Your task to perform on an android device: open app "WhatsApp Messenger" Image 0: 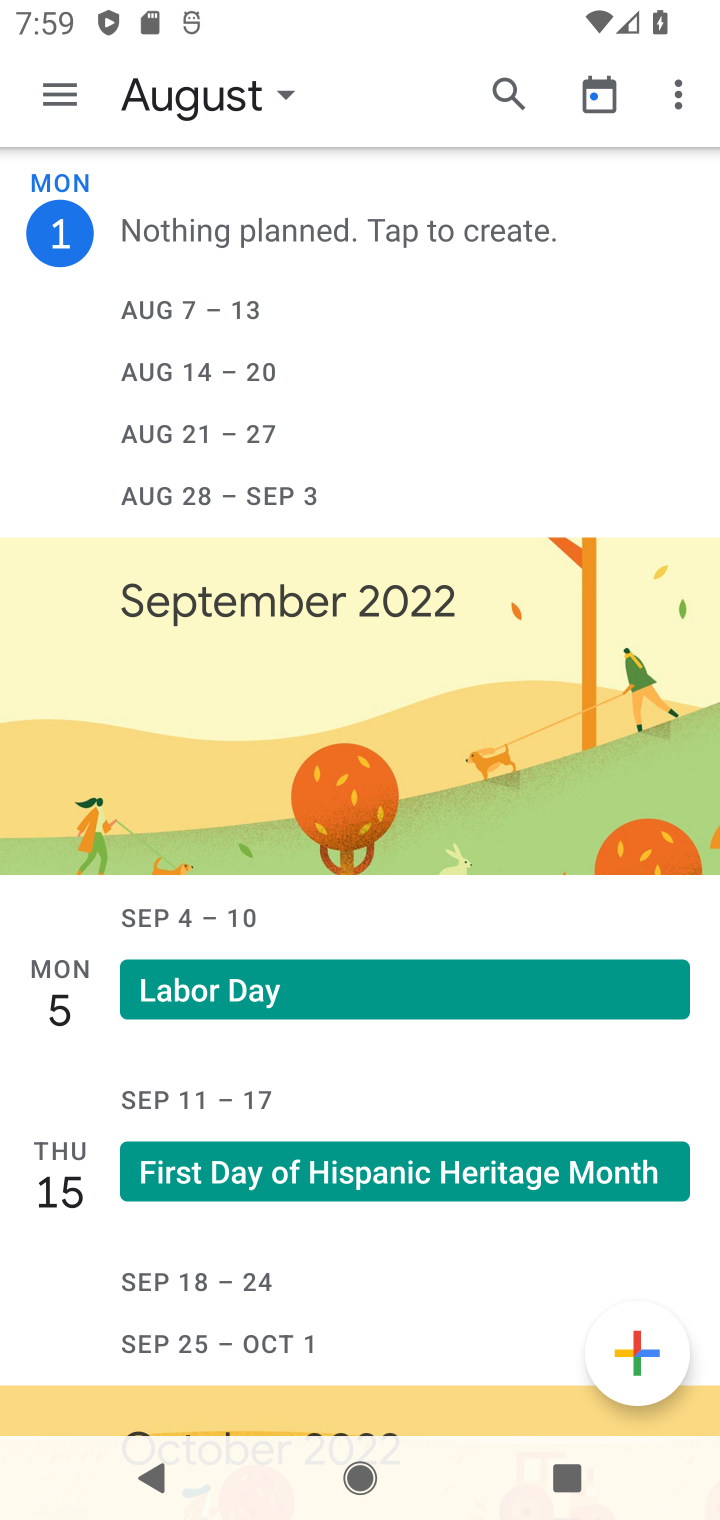
Step 0: click (713, 1330)
Your task to perform on an android device: open app "WhatsApp Messenger" Image 1: 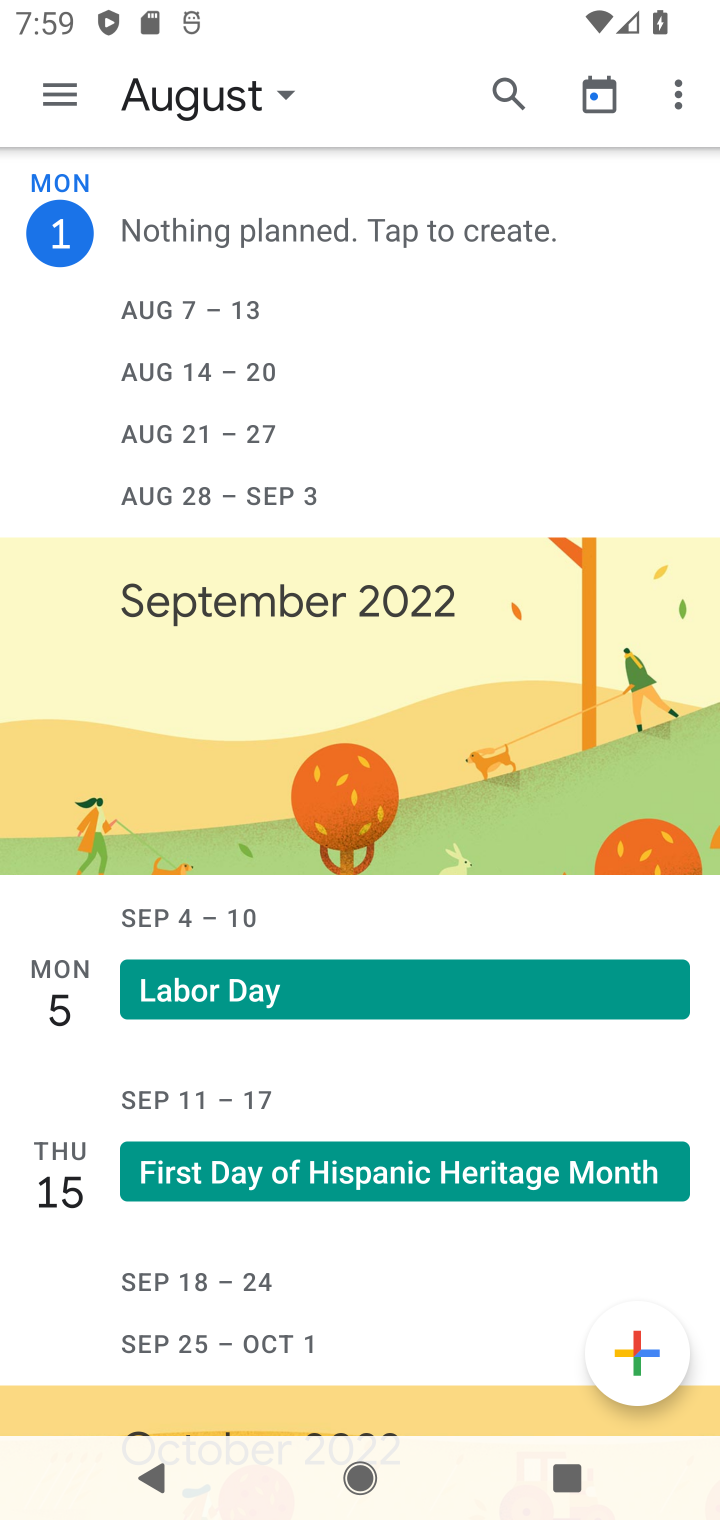
Step 1: press home button
Your task to perform on an android device: open app "WhatsApp Messenger" Image 2: 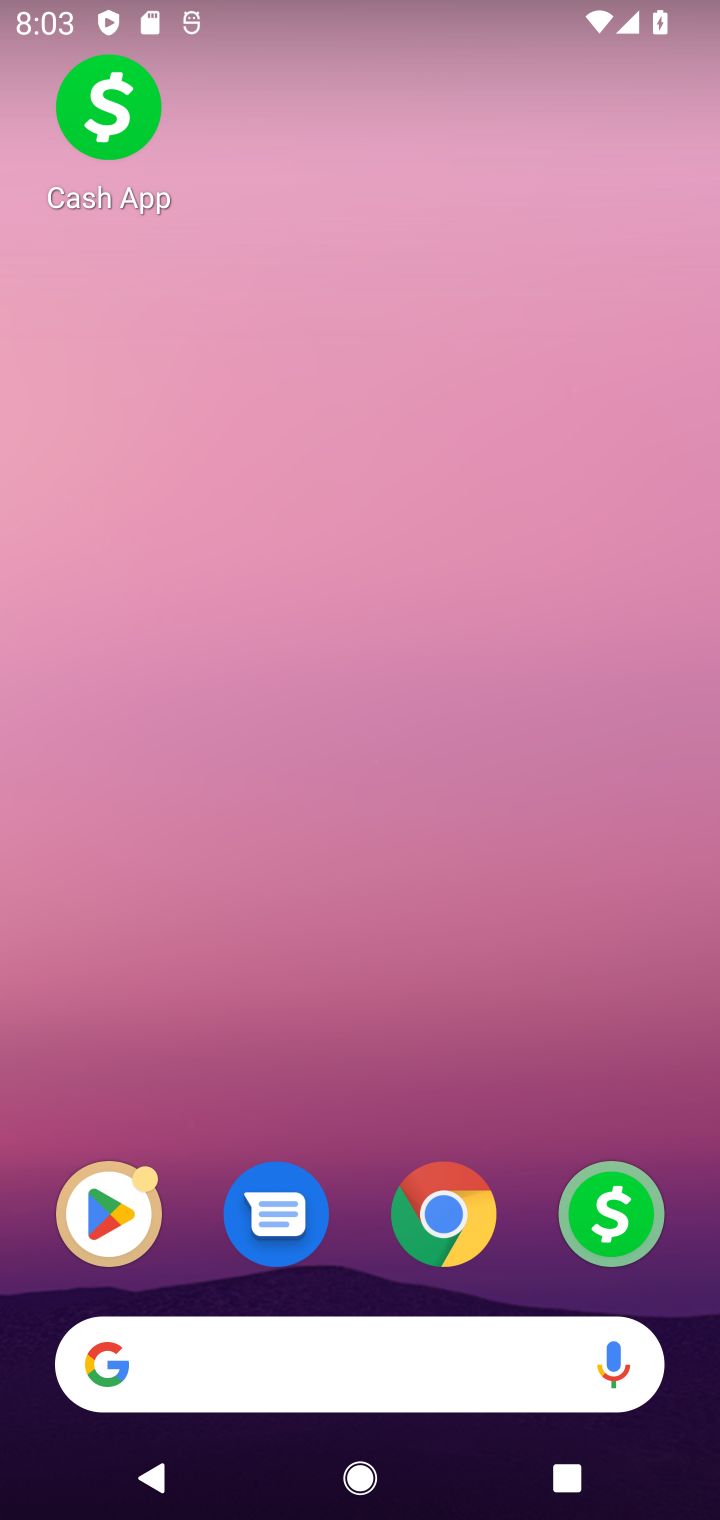
Step 2: click (134, 1206)
Your task to perform on an android device: open app "WhatsApp Messenger" Image 3: 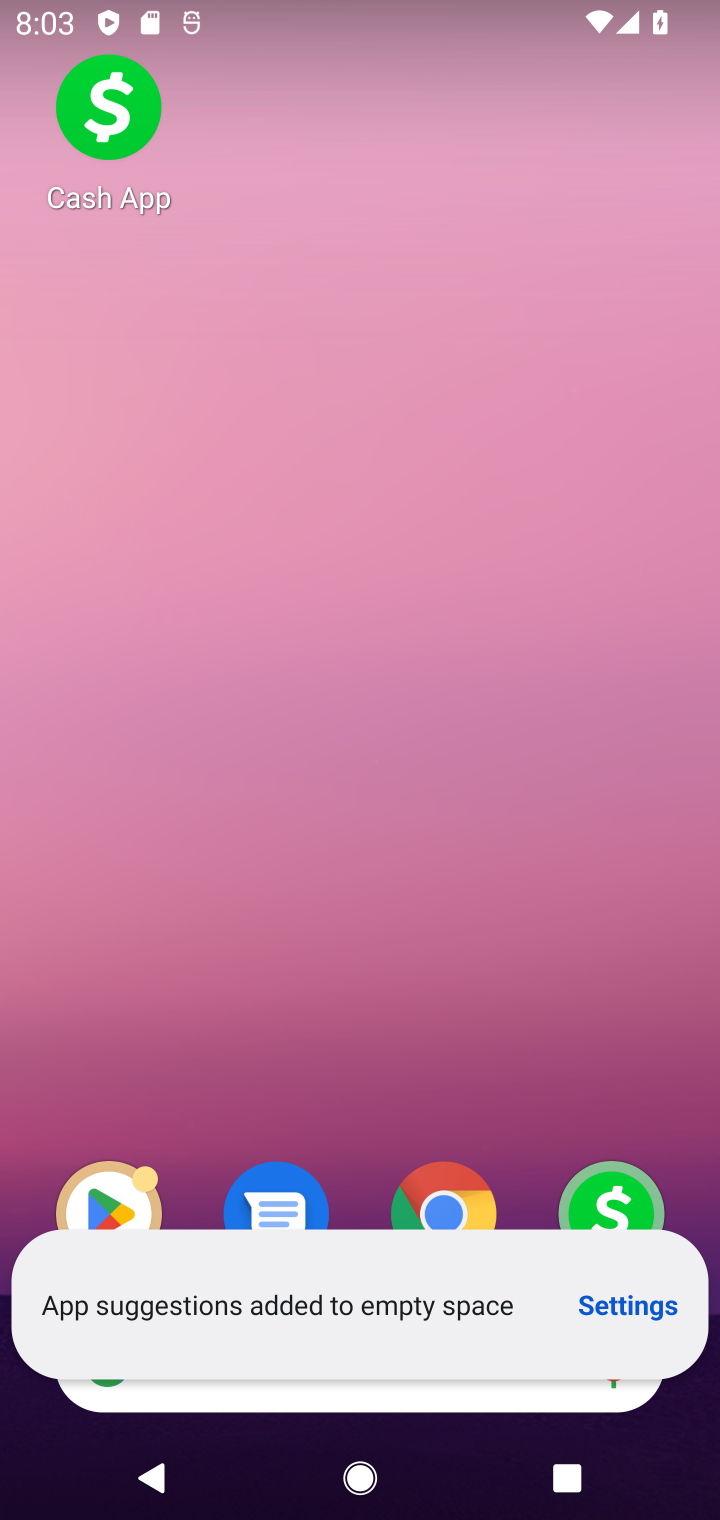
Step 3: click (130, 1173)
Your task to perform on an android device: open app "WhatsApp Messenger" Image 4: 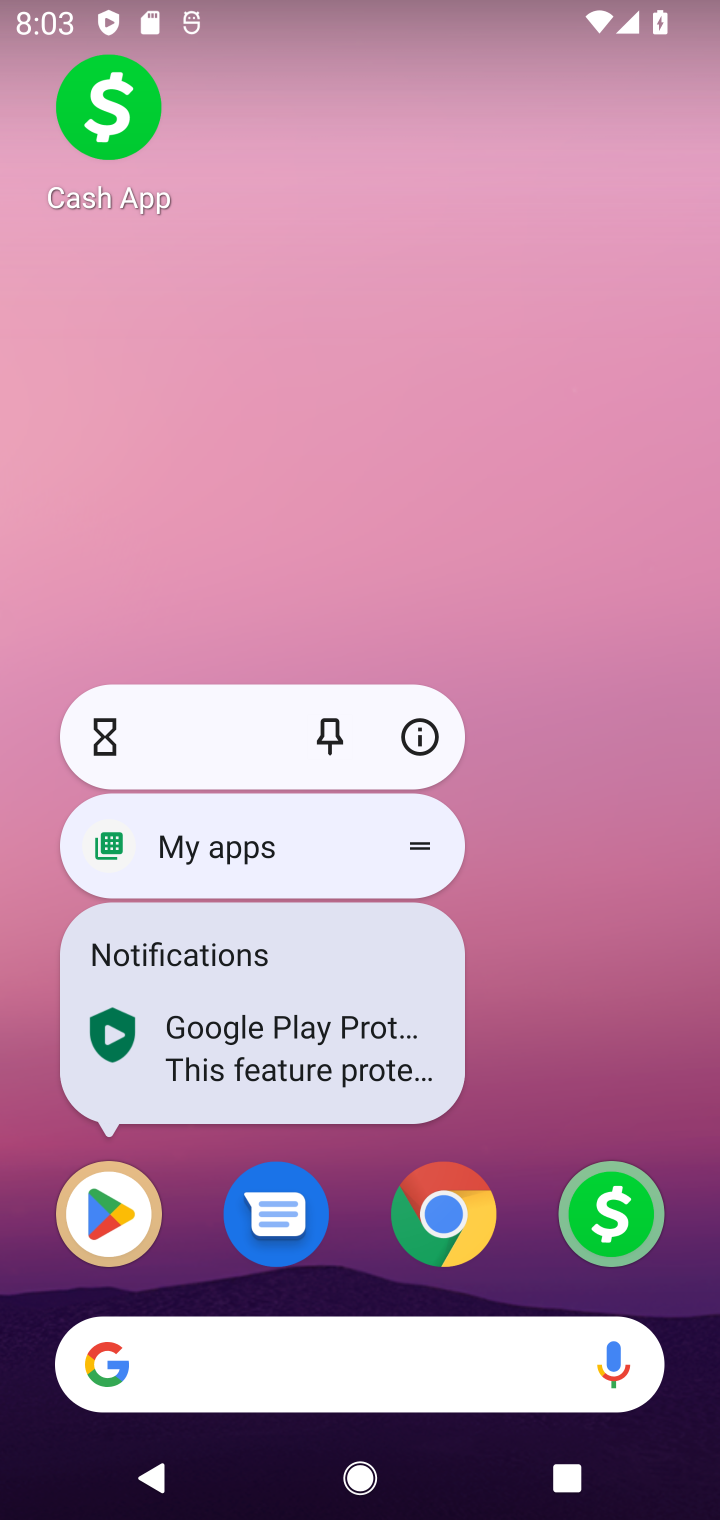
Step 4: click (117, 1204)
Your task to perform on an android device: open app "WhatsApp Messenger" Image 5: 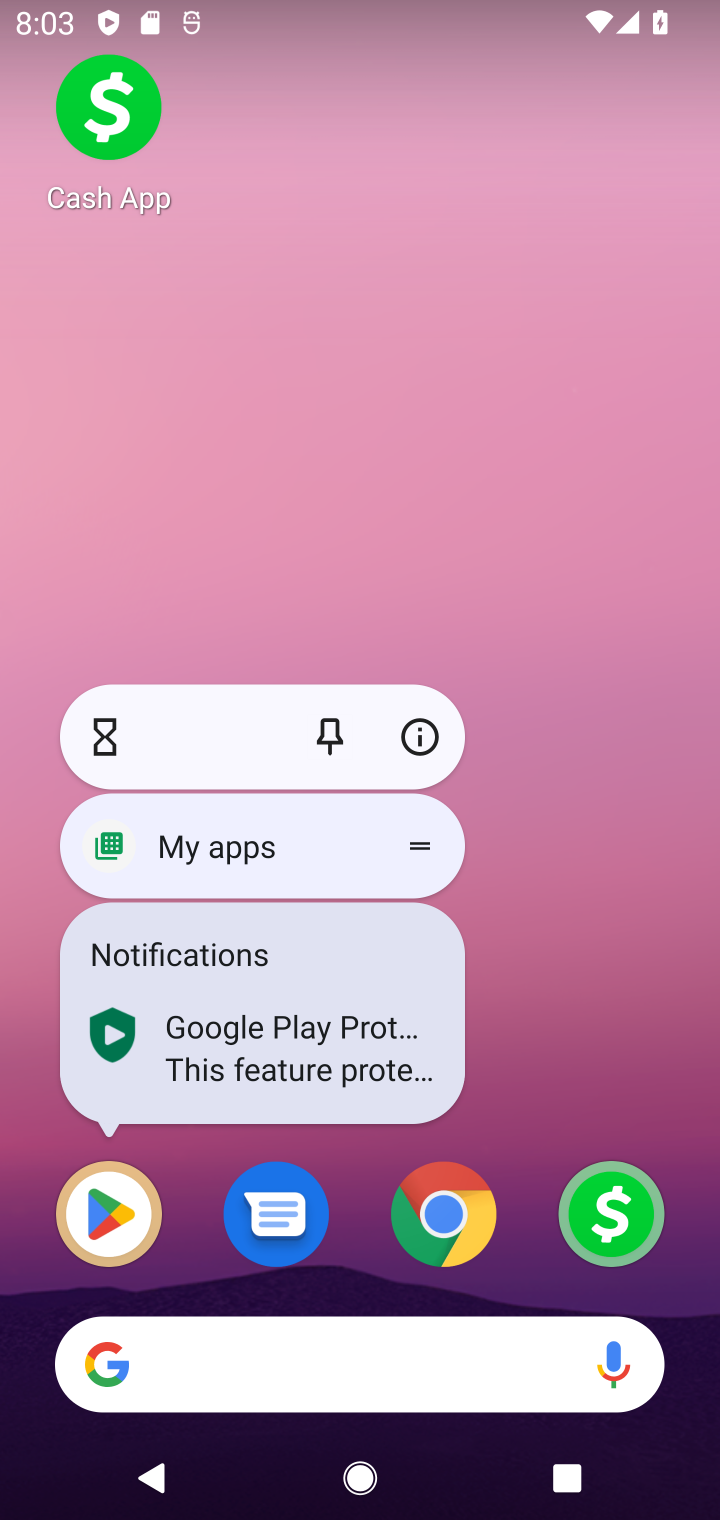
Step 5: click (117, 1204)
Your task to perform on an android device: open app "WhatsApp Messenger" Image 6: 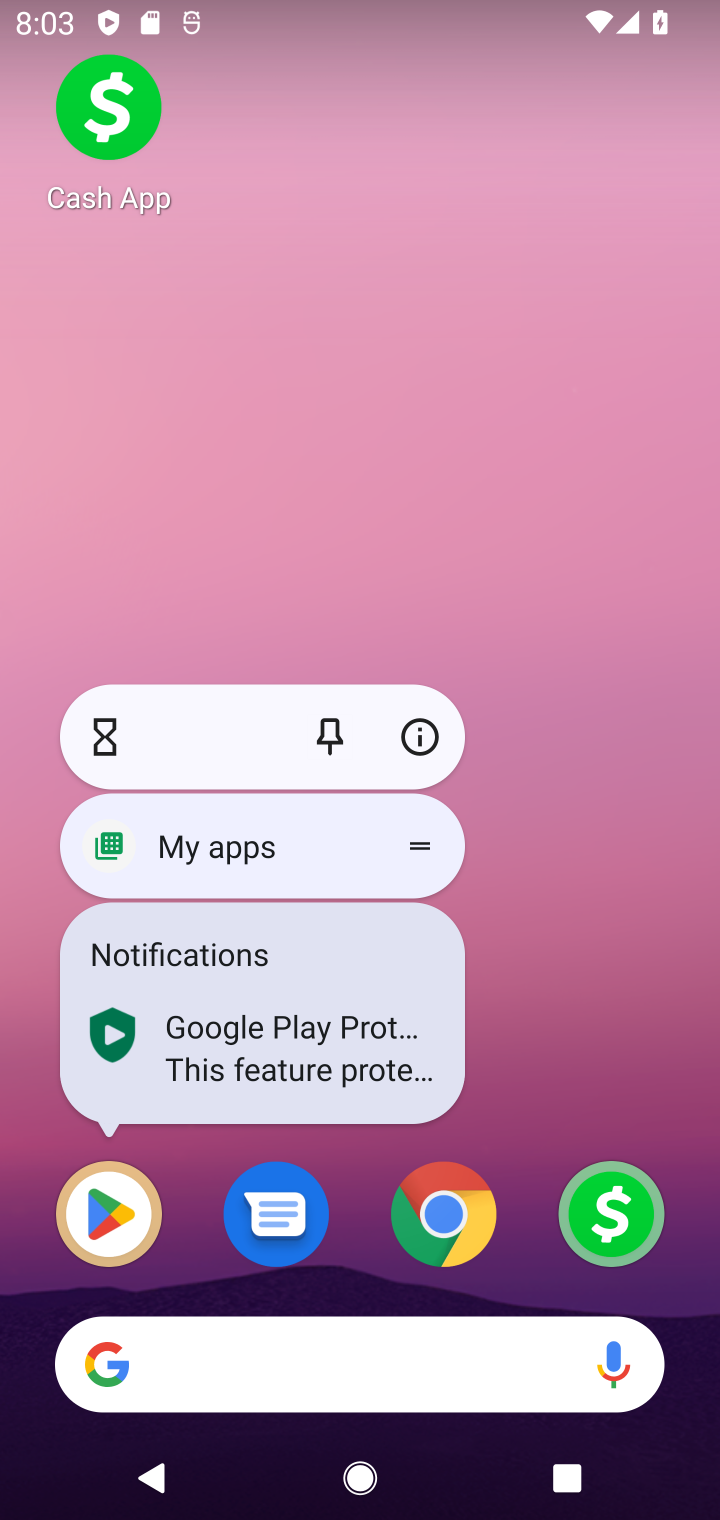
Step 6: click (274, 1366)
Your task to perform on an android device: open app "WhatsApp Messenger" Image 7: 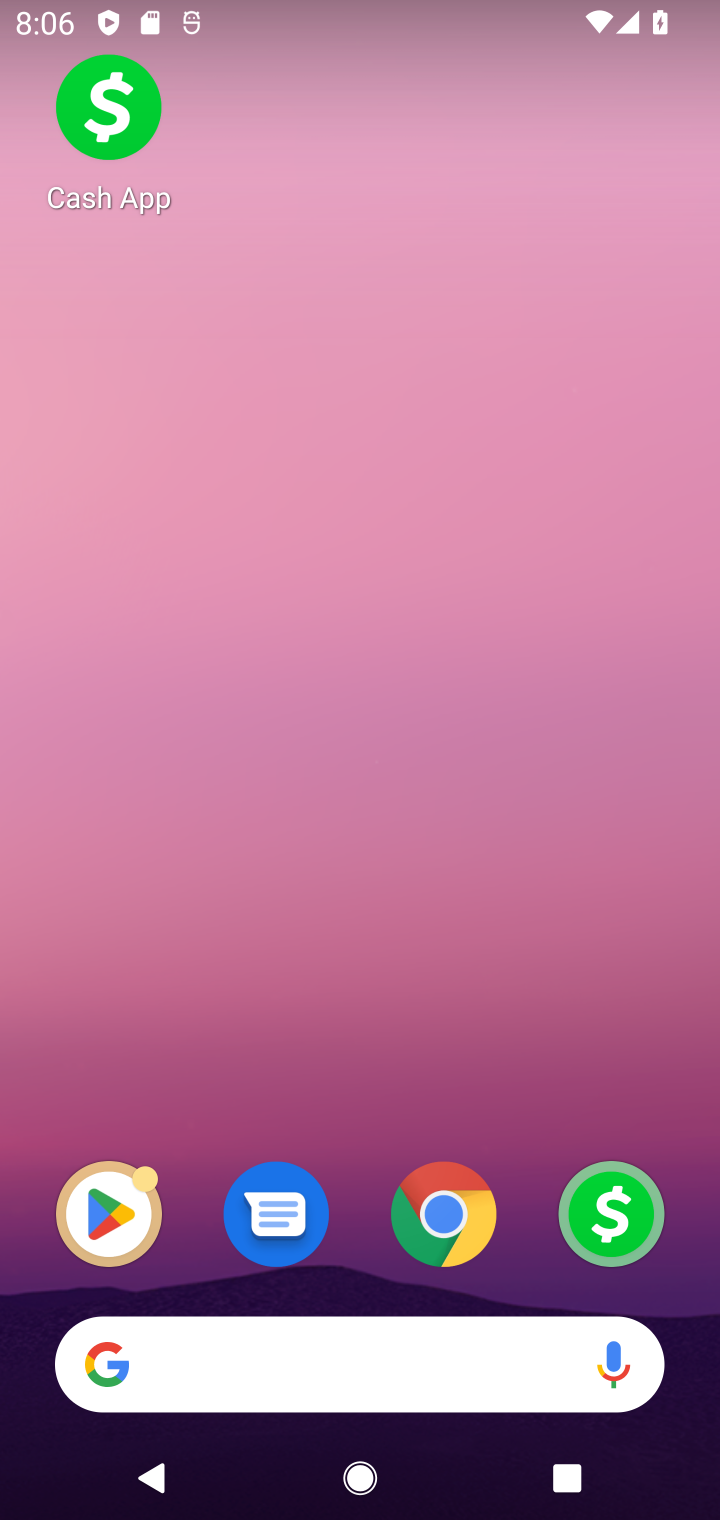
Step 7: click (103, 1222)
Your task to perform on an android device: open app "WhatsApp Messenger" Image 8: 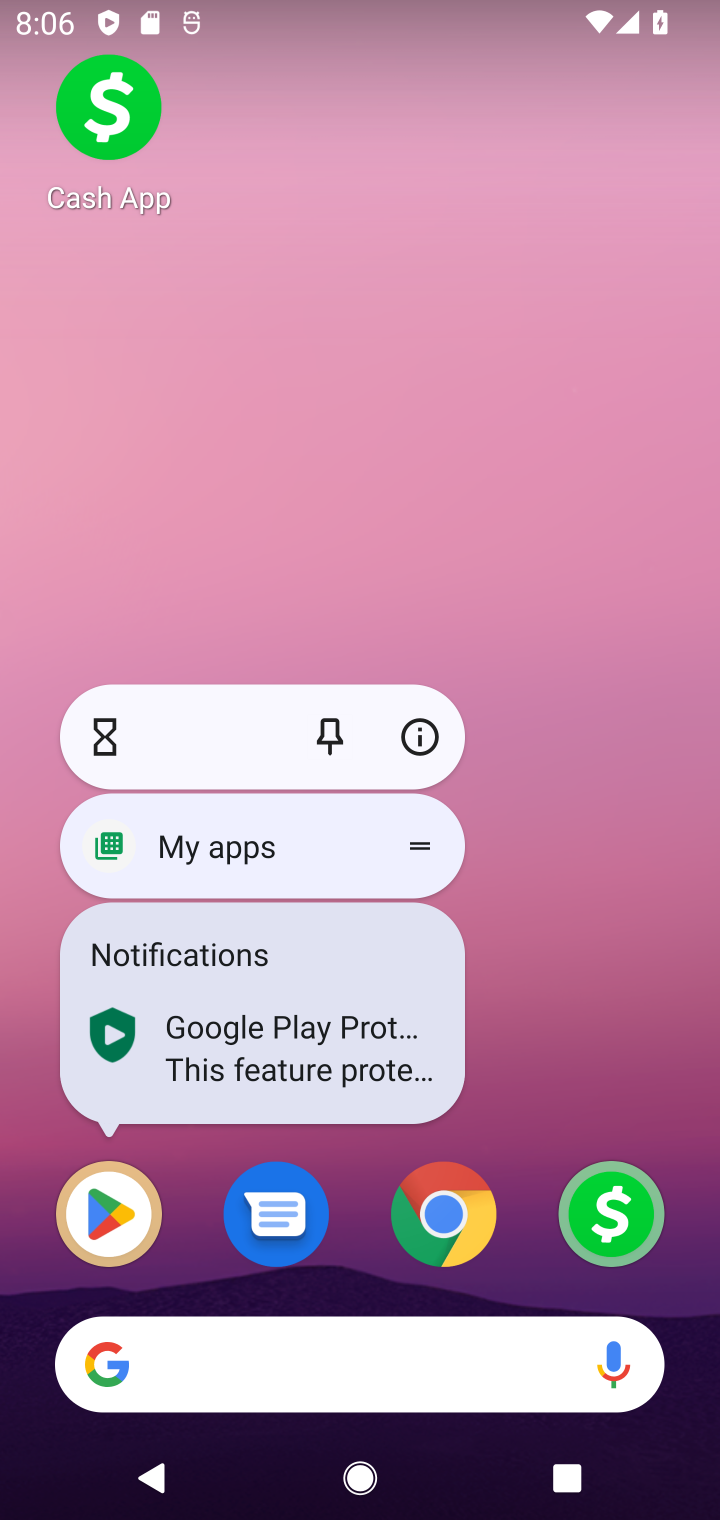
Step 8: click (116, 1210)
Your task to perform on an android device: open app "WhatsApp Messenger" Image 9: 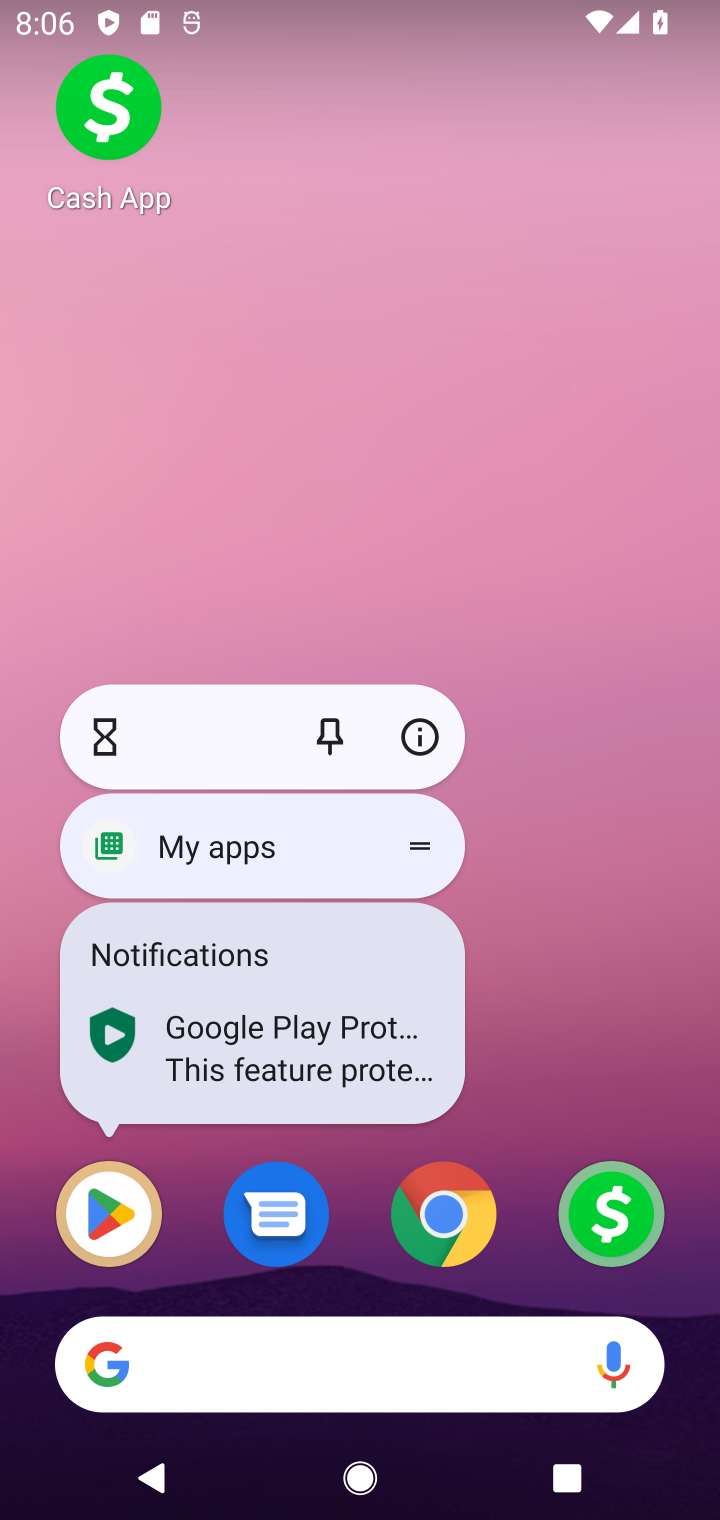
Step 9: click (140, 1210)
Your task to perform on an android device: open app "WhatsApp Messenger" Image 10: 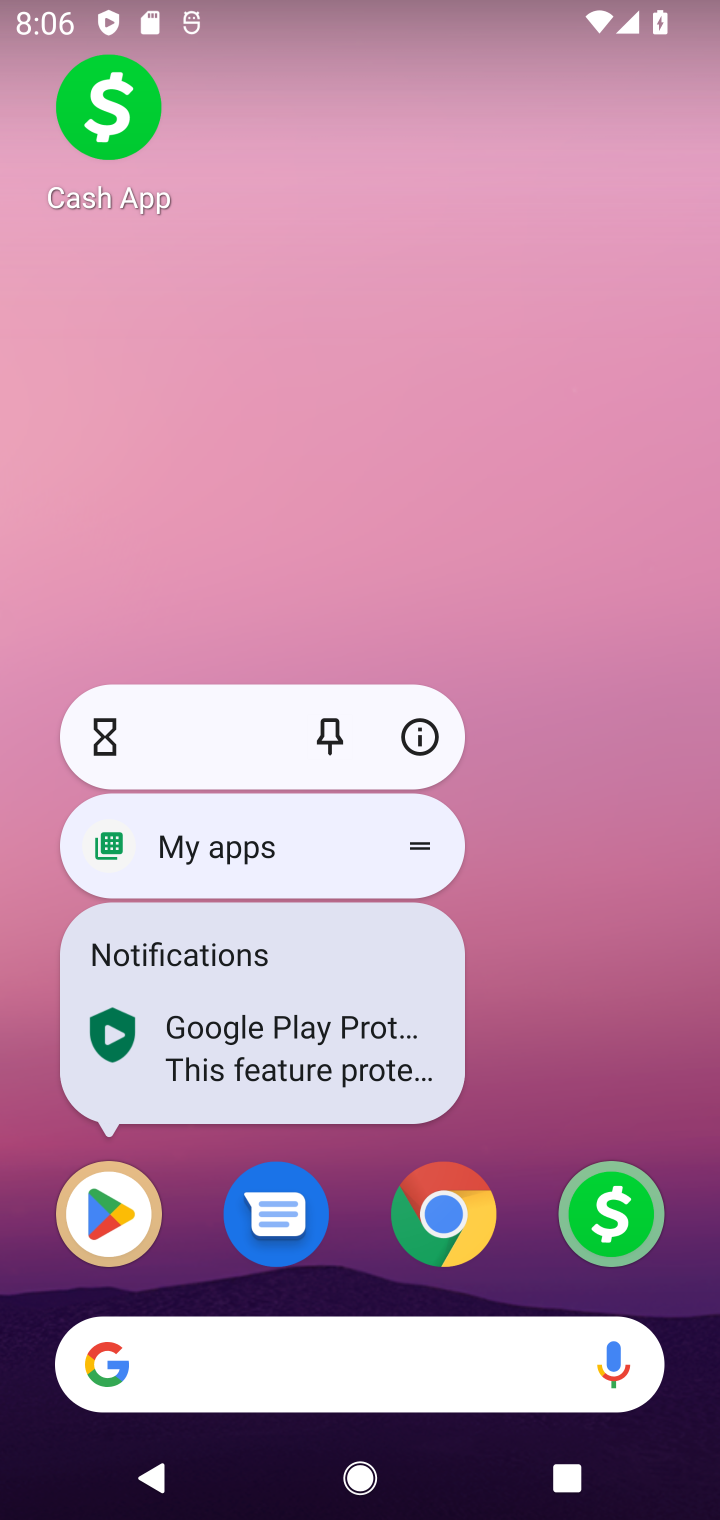
Step 10: click (140, 1210)
Your task to perform on an android device: open app "WhatsApp Messenger" Image 11: 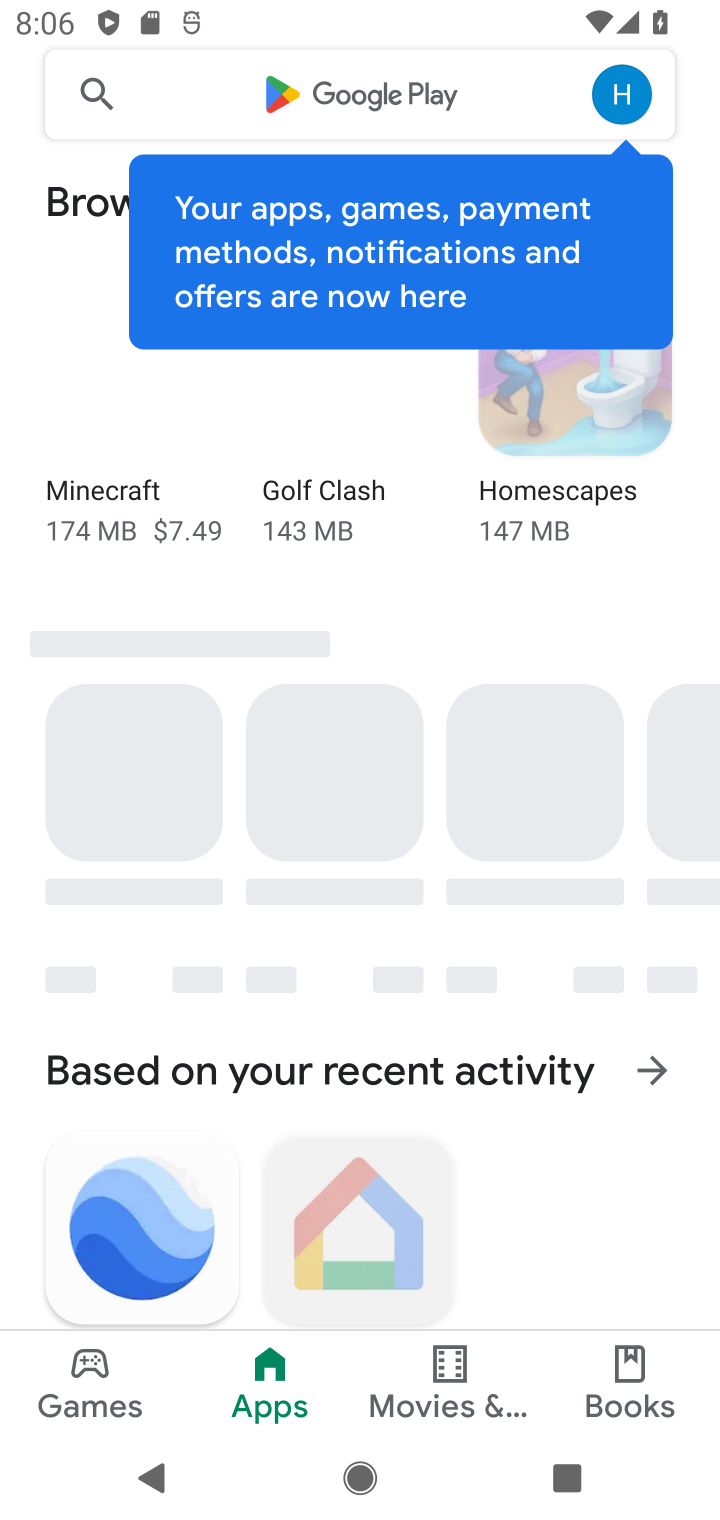
Step 11: click (211, 93)
Your task to perform on an android device: open app "WhatsApp Messenger" Image 12: 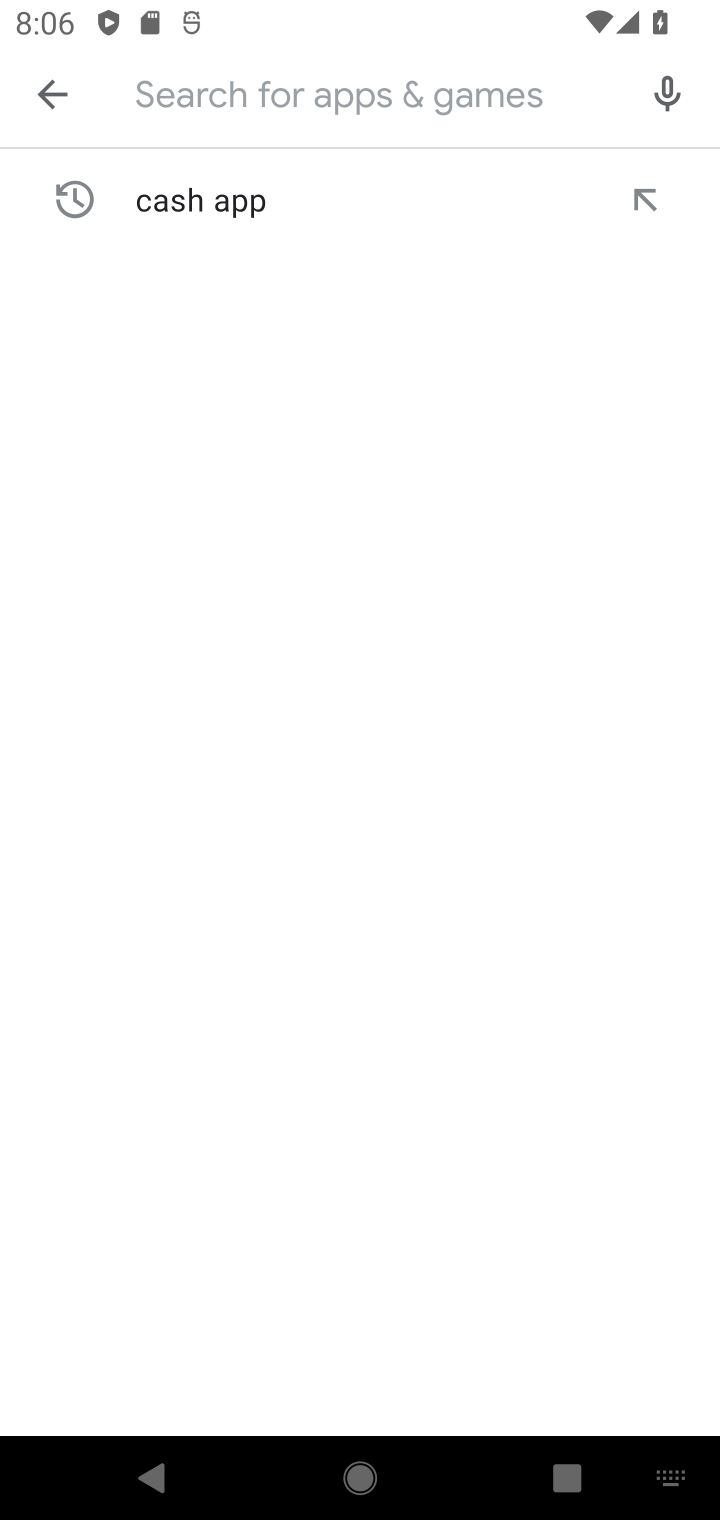
Step 12: type "WhatsApp"
Your task to perform on an android device: open app "WhatsApp Messenger" Image 13: 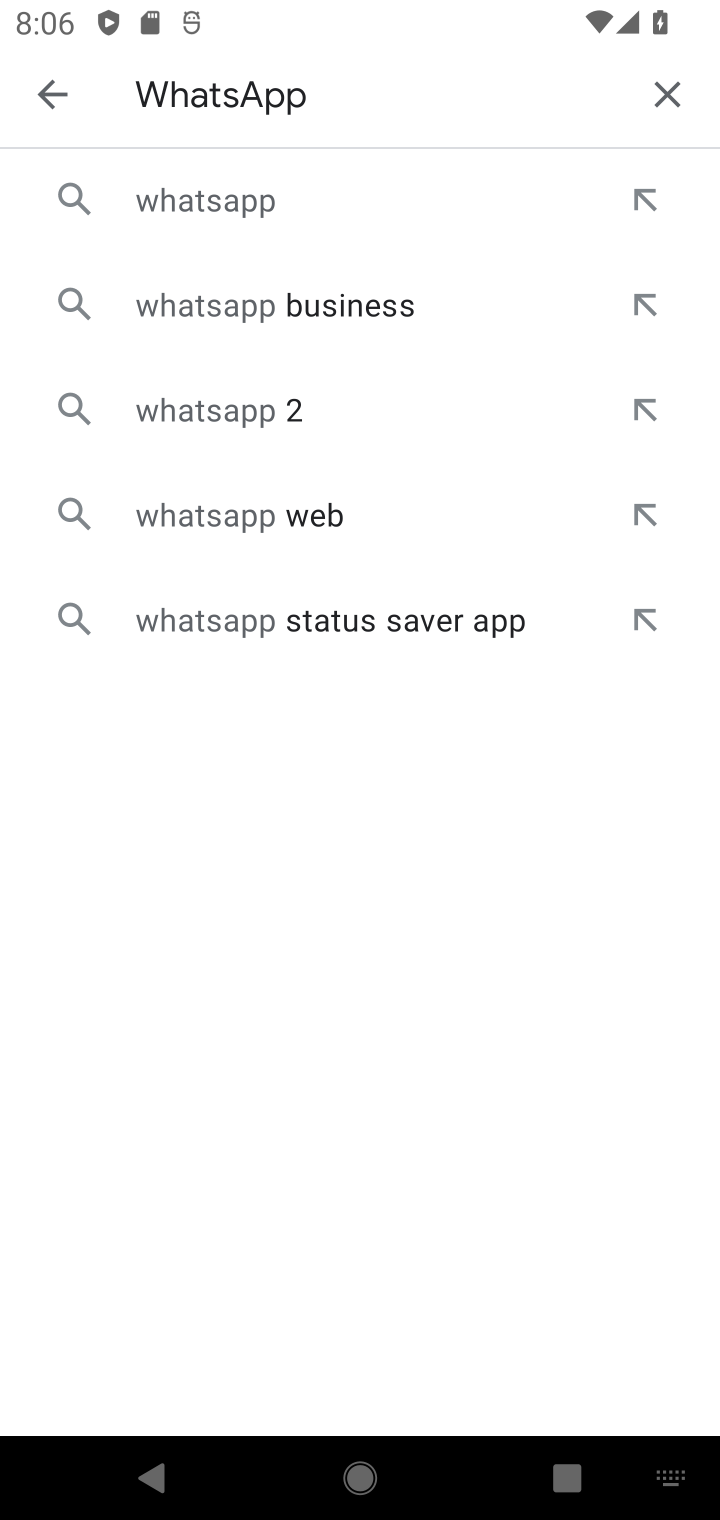
Step 13: click (306, 137)
Your task to perform on an android device: open app "WhatsApp Messenger" Image 14: 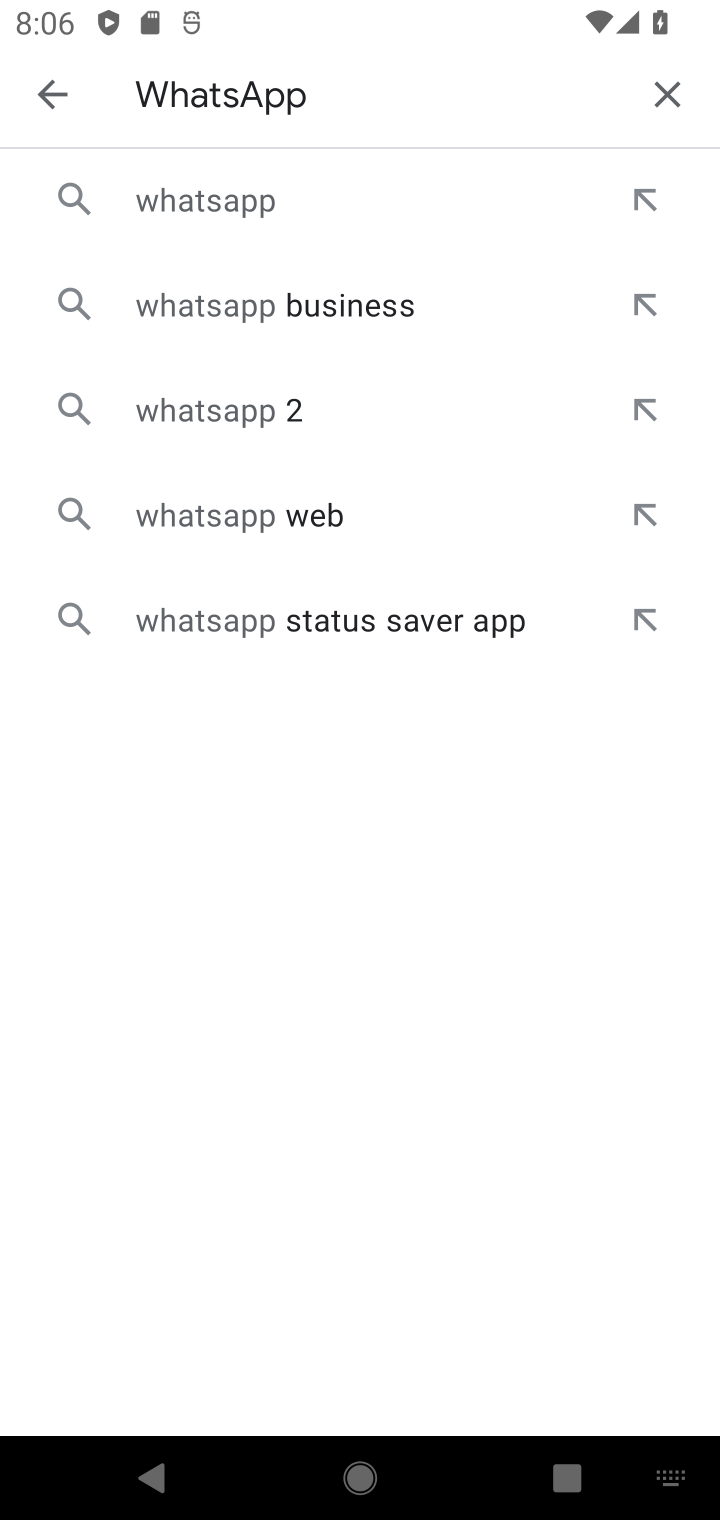
Step 14: press enter
Your task to perform on an android device: open app "WhatsApp Messenger" Image 15: 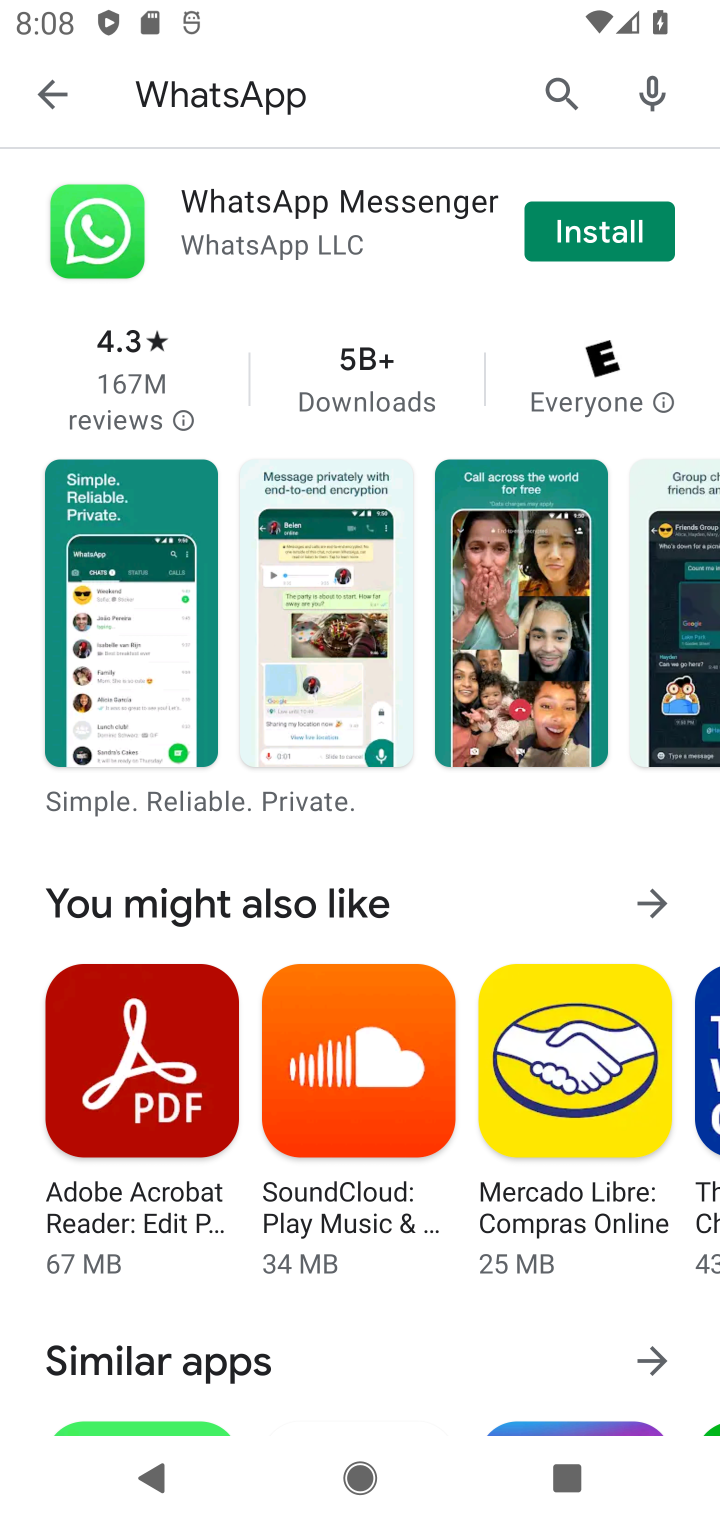
Step 15: task complete